Your task to perform on an android device: open device folders in google photos Image 0: 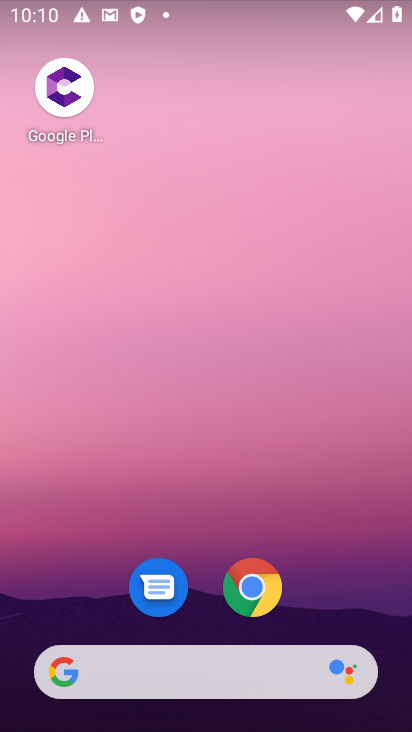
Step 0: drag from (231, 646) to (225, 155)
Your task to perform on an android device: open device folders in google photos Image 1: 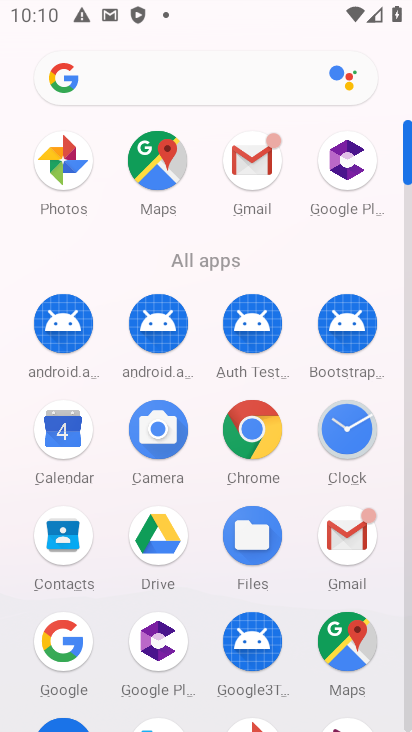
Step 1: drag from (188, 625) to (214, 157)
Your task to perform on an android device: open device folders in google photos Image 2: 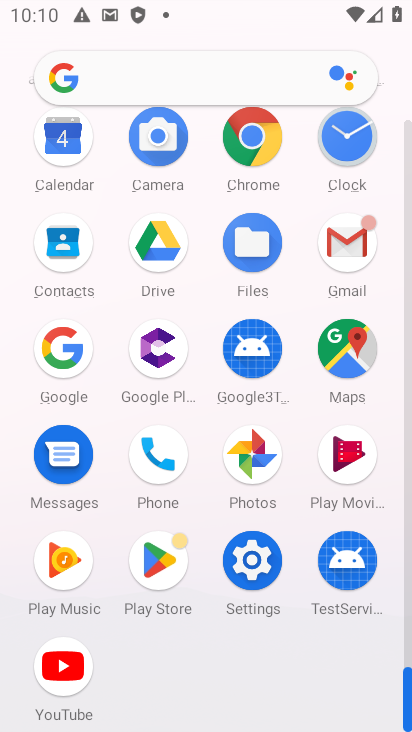
Step 2: click (259, 458)
Your task to perform on an android device: open device folders in google photos Image 3: 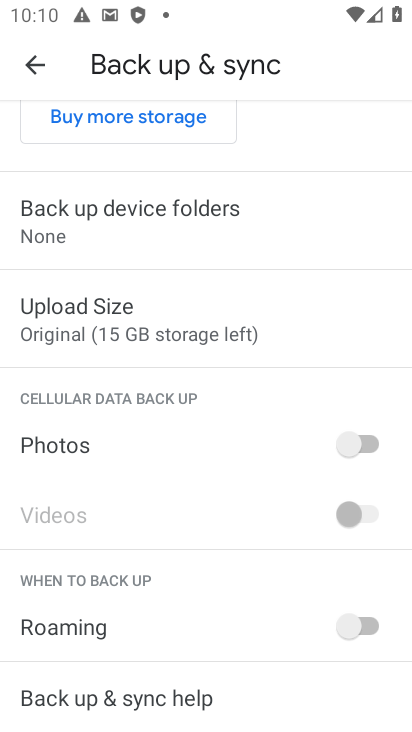
Step 3: click (139, 309)
Your task to perform on an android device: open device folders in google photos Image 4: 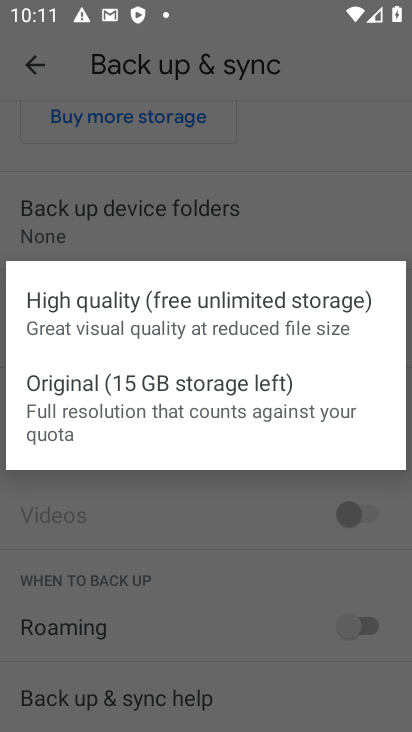
Step 4: click (42, 72)
Your task to perform on an android device: open device folders in google photos Image 5: 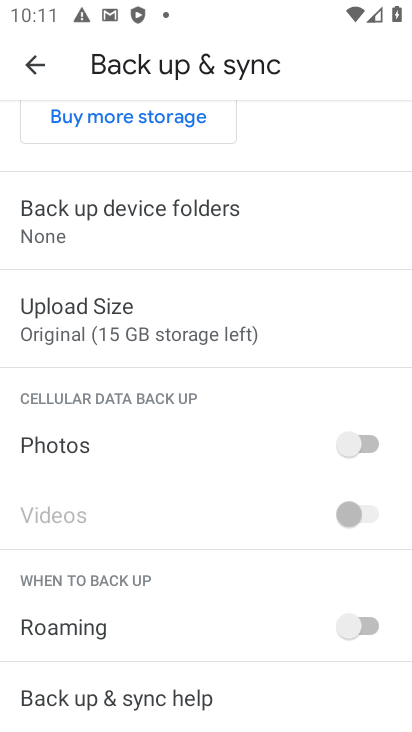
Step 5: click (42, 72)
Your task to perform on an android device: open device folders in google photos Image 6: 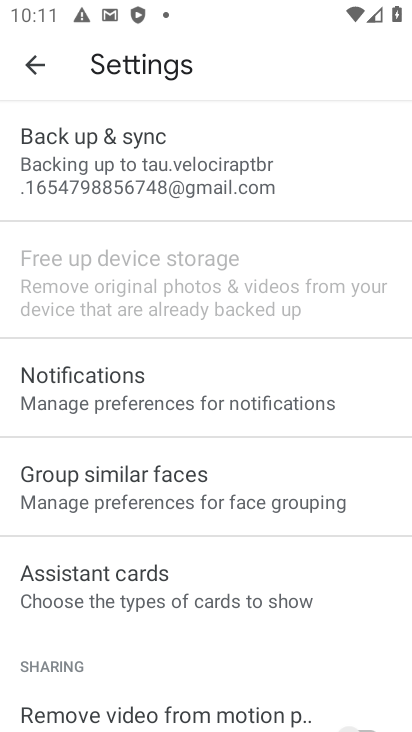
Step 6: click (37, 56)
Your task to perform on an android device: open device folders in google photos Image 7: 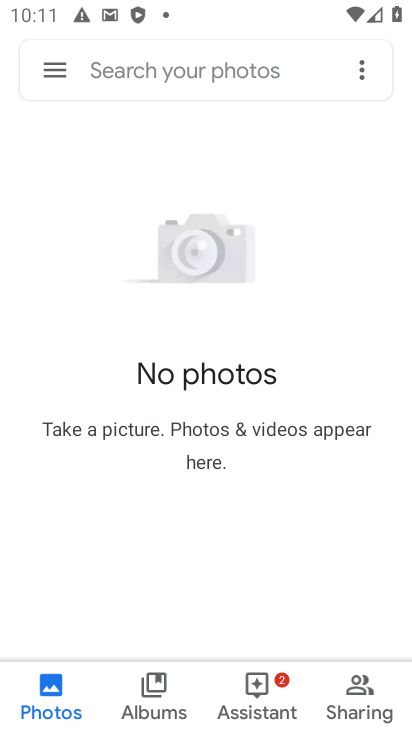
Step 7: click (171, 693)
Your task to perform on an android device: open device folders in google photos Image 8: 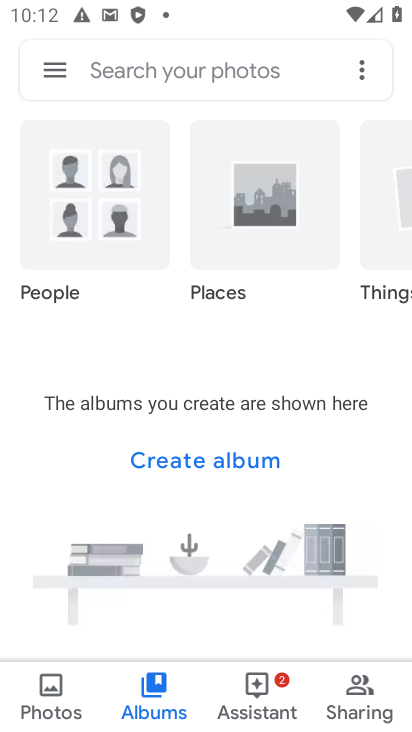
Step 8: task complete